Your task to perform on an android device: turn off improve location accuracy Image 0: 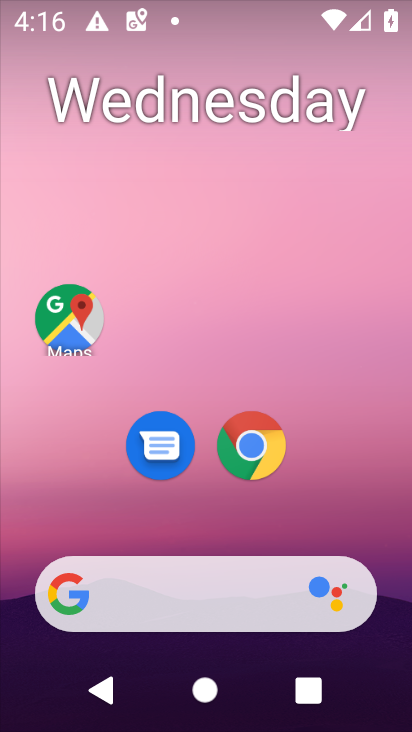
Step 0: drag from (324, 458) to (313, 35)
Your task to perform on an android device: turn off improve location accuracy Image 1: 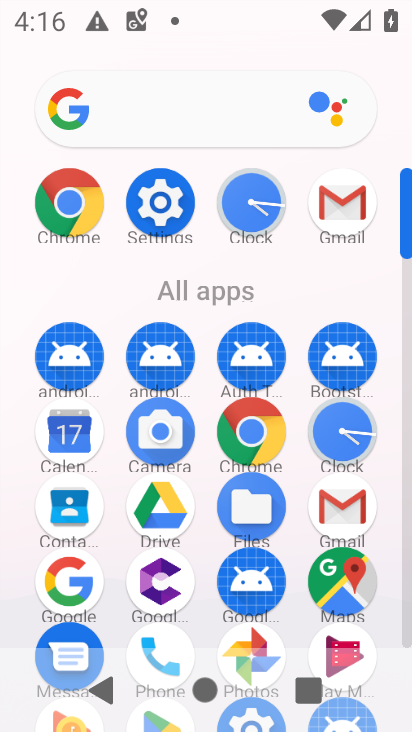
Step 1: drag from (194, 600) to (226, 167)
Your task to perform on an android device: turn off improve location accuracy Image 2: 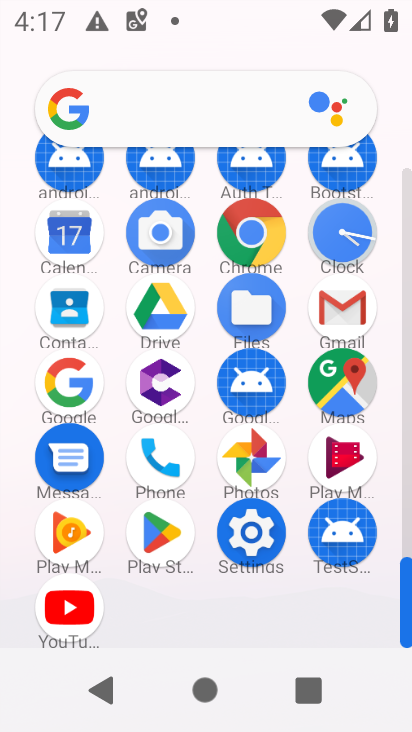
Step 2: click (253, 530)
Your task to perform on an android device: turn off improve location accuracy Image 3: 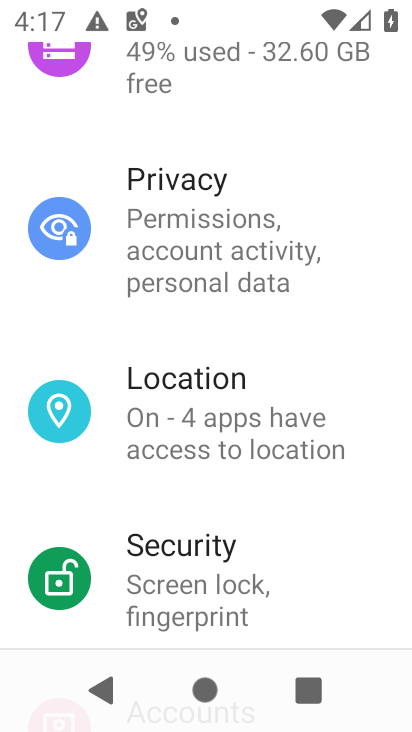
Step 3: click (253, 453)
Your task to perform on an android device: turn off improve location accuracy Image 4: 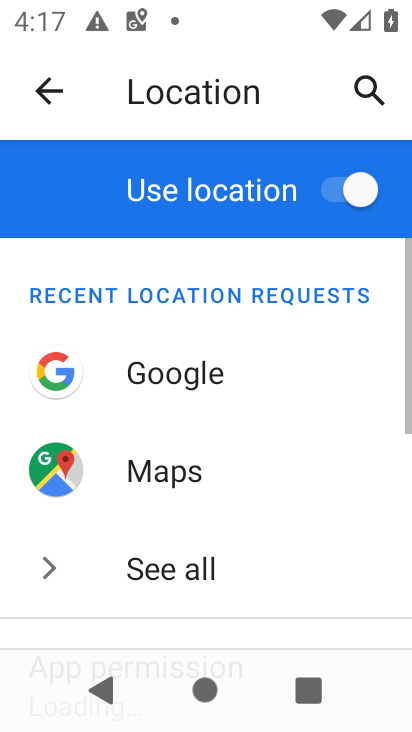
Step 4: drag from (275, 525) to (291, 5)
Your task to perform on an android device: turn off improve location accuracy Image 5: 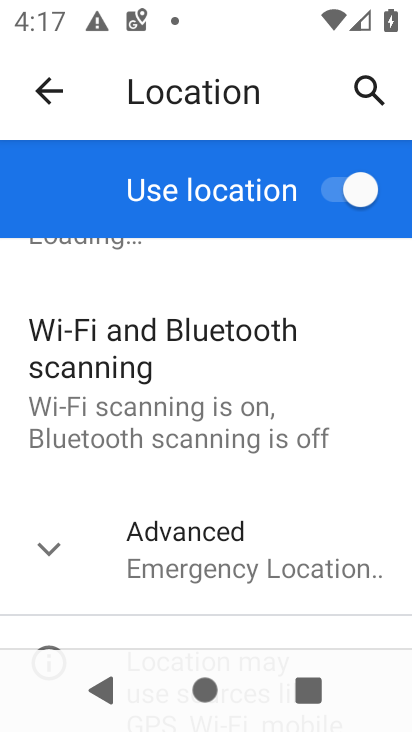
Step 5: click (230, 552)
Your task to perform on an android device: turn off improve location accuracy Image 6: 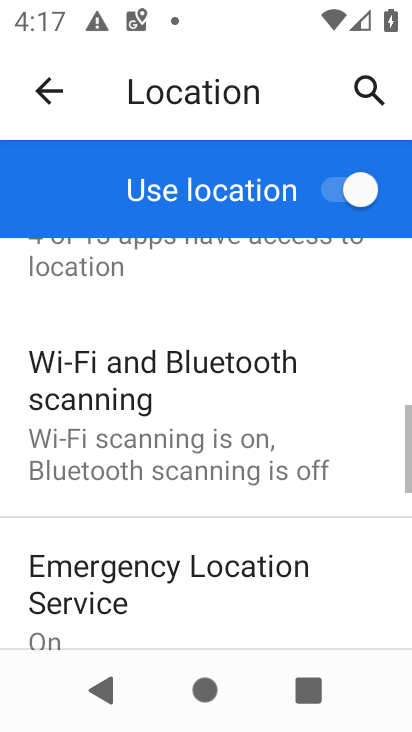
Step 6: drag from (323, 575) to (277, 8)
Your task to perform on an android device: turn off improve location accuracy Image 7: 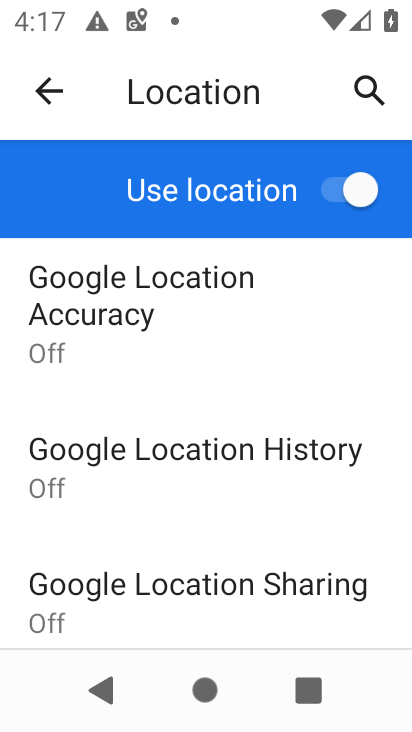
Step 7: click (132, 321)
Your task to perform on an android device: turn off improve location accuracy Image 8: 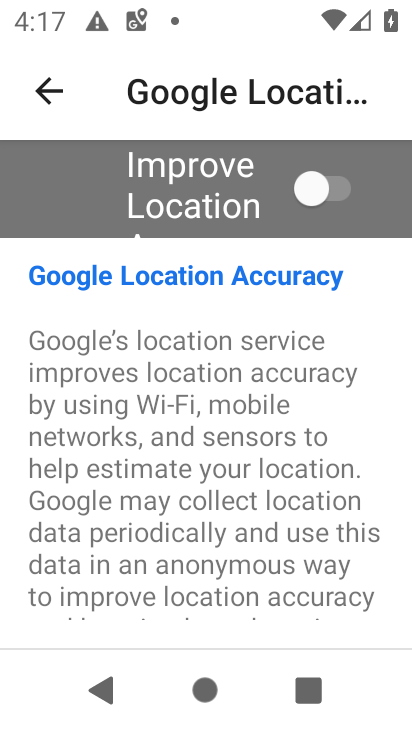
Step 8: task complete